Your task to perform on an android device: Toggle the flashlight Image 0: 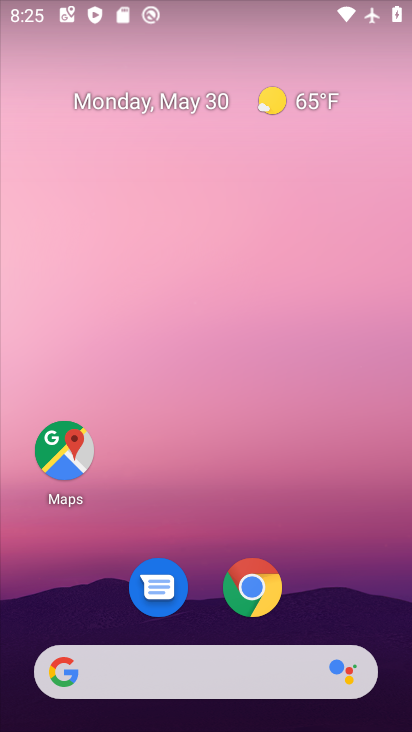
Step 0: press home button
Your task to perform on an android device: Toggle the flashlight Image 1: 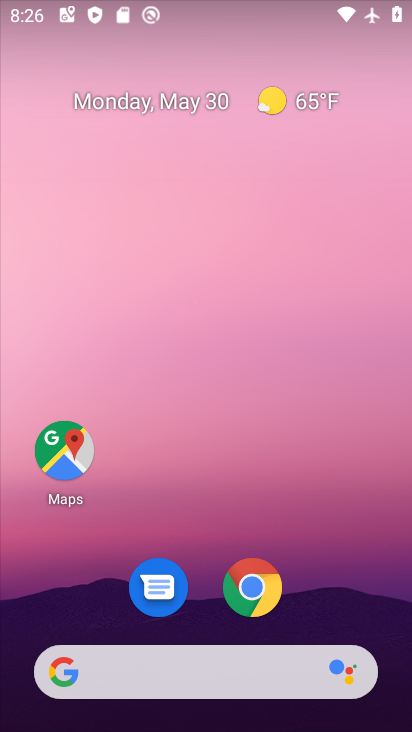
Step 1: task complete